Your task to perform on an android device: Find coffee shops on Maps Image 0: 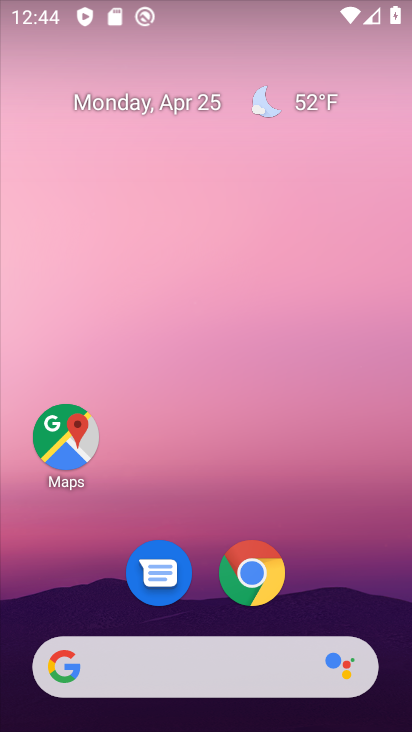
Step 0: click (81, 443)
Your task to perform on an android device: Find coffee shops on Maps Image 1: 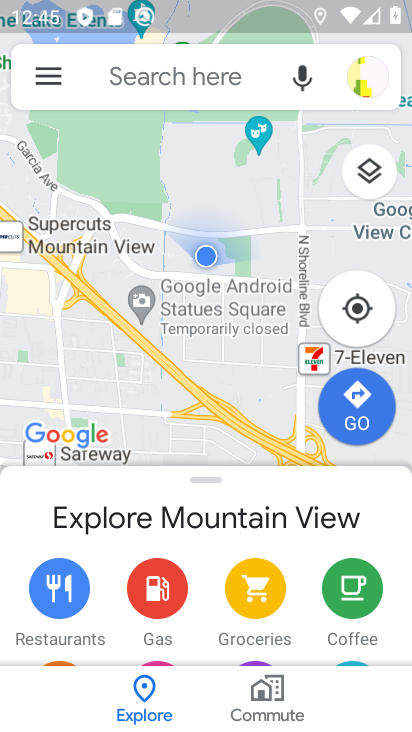
Step 1: click (128, 86)
Your task to perform on an android device: Find coffee shops on Maps Image 2: 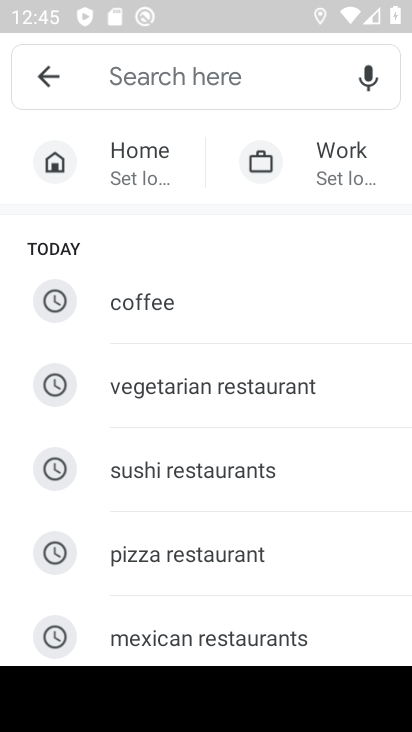
Step 2: click (280, 309)
Your task to perform on an android device: Find coffee shops on Maps Image 3: 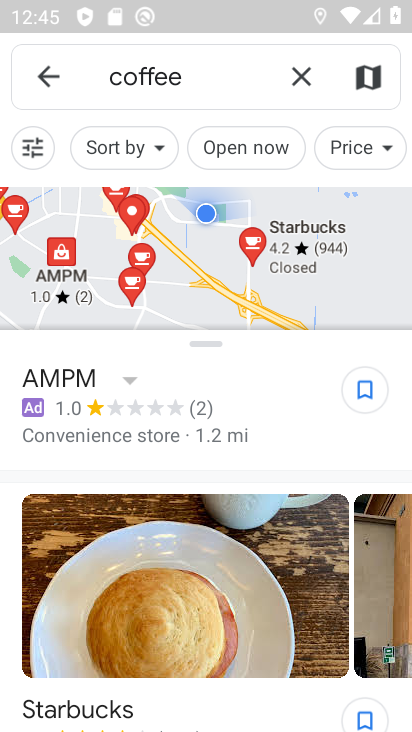
Step 3: task complete